Your task to perform on an android device: change the upload size in google photos Image 0: 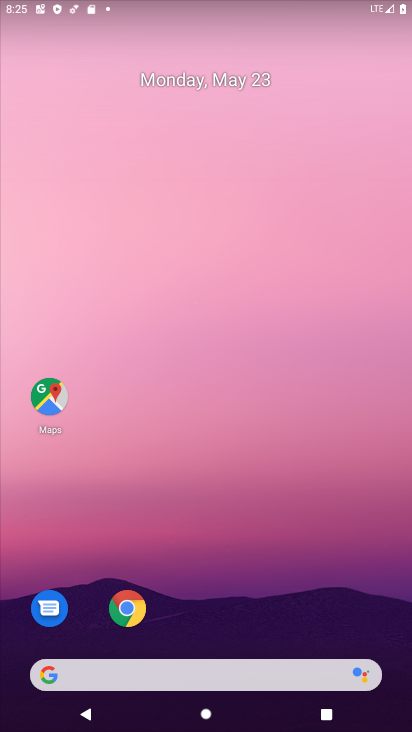
Step 0: drag from (217, 669) to (213, 339)
Your task to perform on an android device: change the upload size in google photos Image 1: 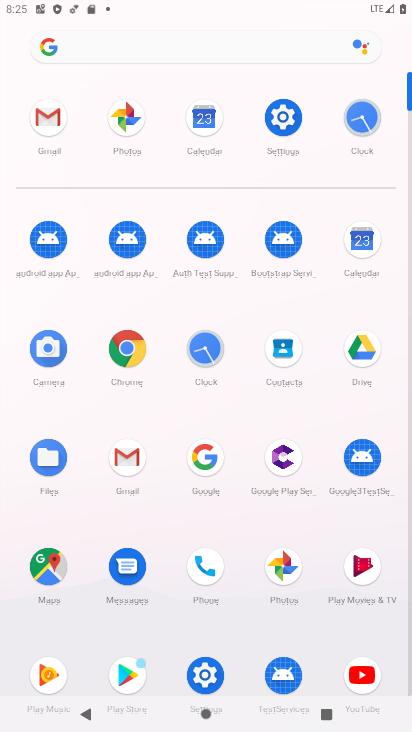
Step 1: click (128, 131)
Your task to perform on an android device: change the upload size in google photos Image 2: 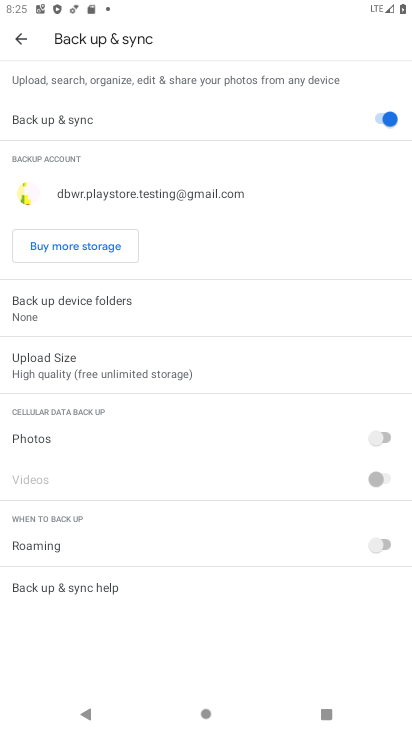
Step 2: click (108, 374)
Your task to perform on an android device: change the upload size in google photos Image 3: 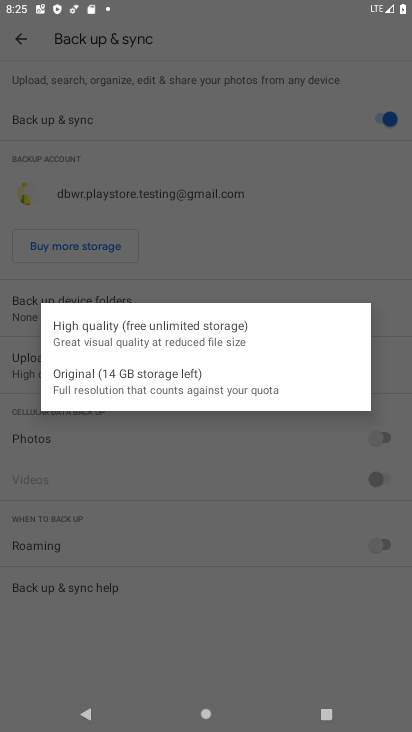
Step 3: click (190, 394)
Your task to perform on an android device: change the upload size in google photos Image 4: 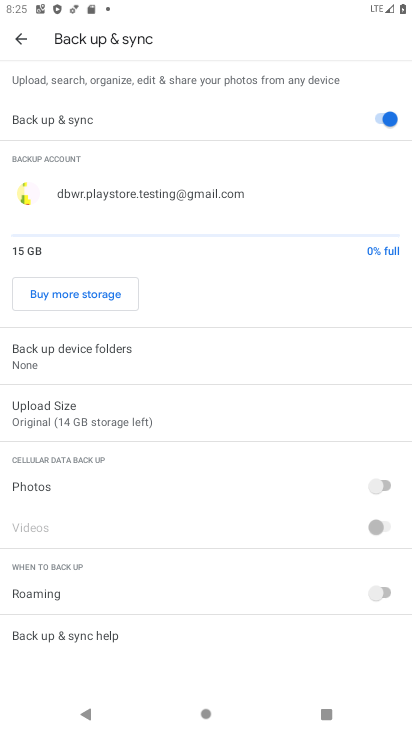
Step 4: task complete